Your task to perform on an android device: check android version Image 0: 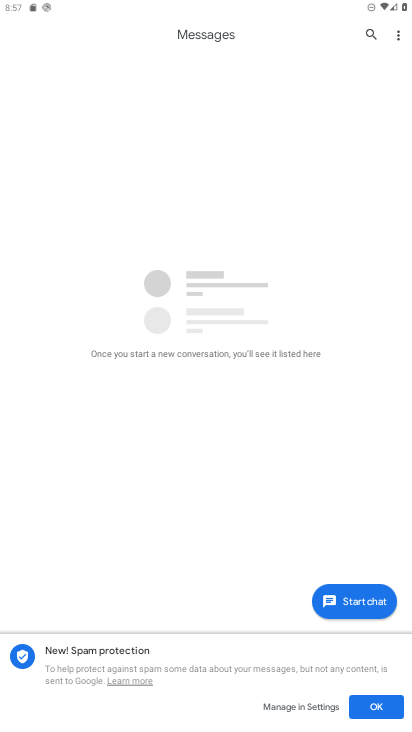
Step 0: press home button
Your task to perform on an android device: check android version Image 1: 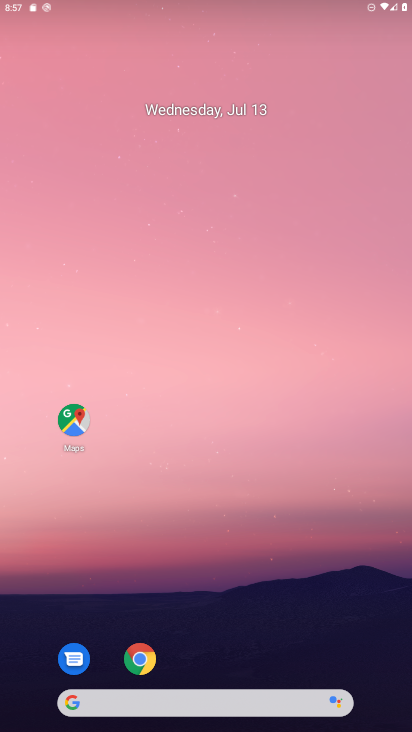
Step 1: drag from (211, 646) to (278, 151)
Your task to perform on an android device: check android version Image 2: 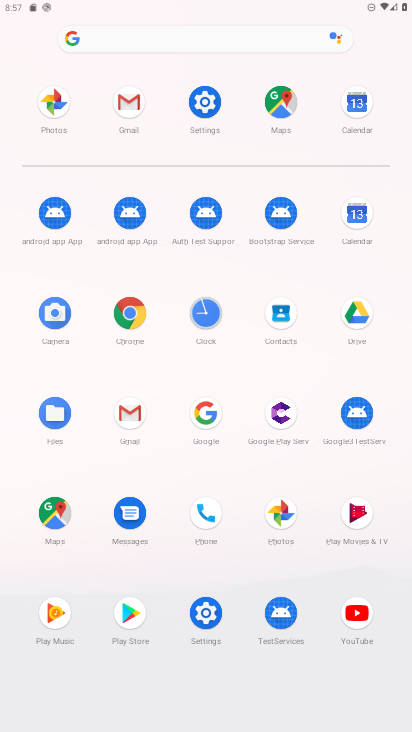
Step 2: click (206, 100)
Your task to perform on an android device: check android version Image 3: 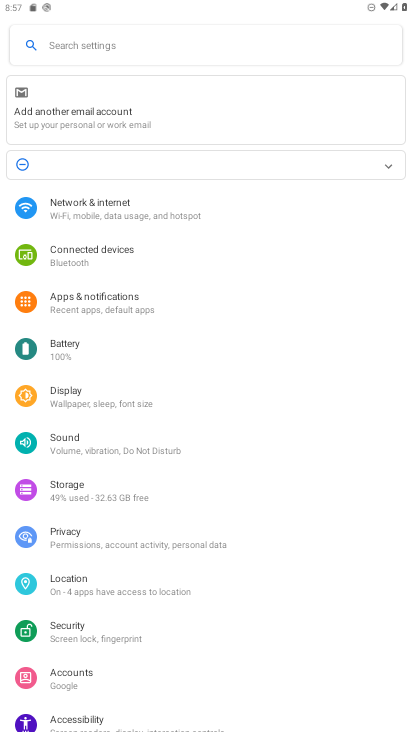
Step 3: drag from (198, 663) to (238, 19)
Your task to perform on an android device: check android version Image 4: 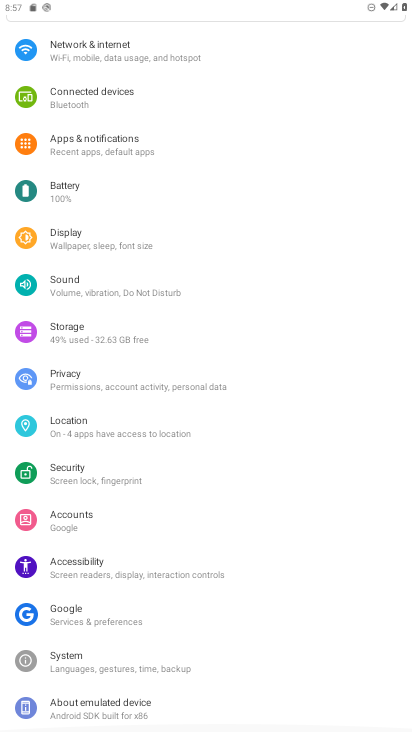
Step 4: click (61, 719)
Your task to perform on an android device: check android version Image 5: 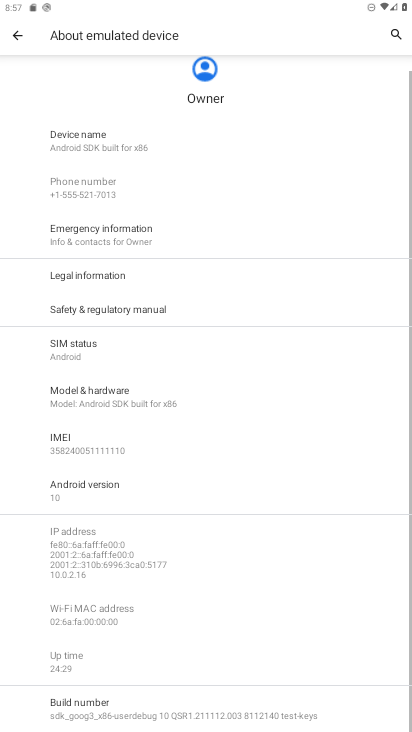
Step 5: click (89, 498)
Your task to perform on an android device: check android version Image 6: 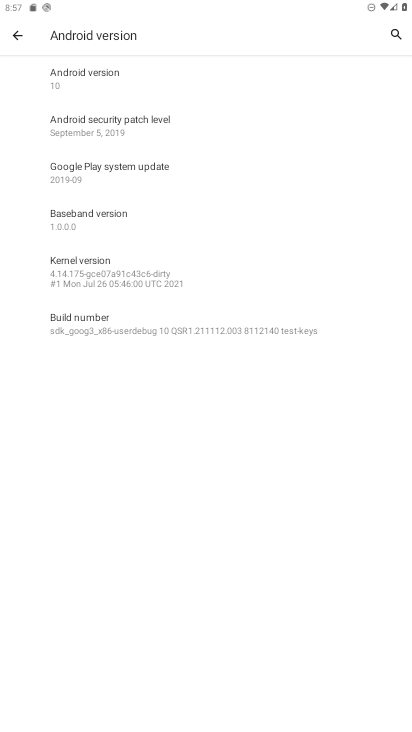
Step 6: task complete